Your task to perform on an android device: Open display settings Image 0: 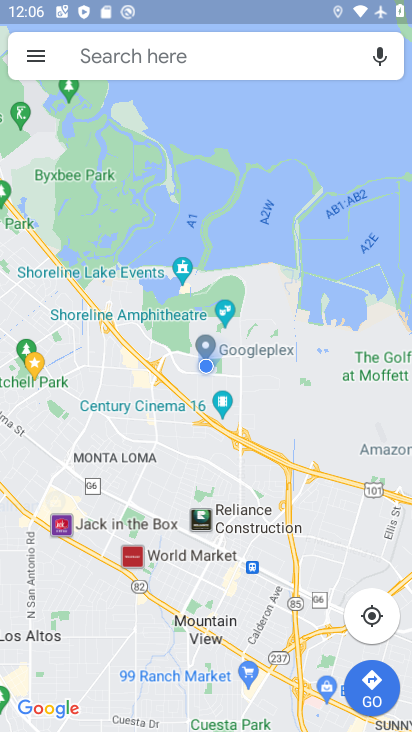
Step 0: press back button
Your task to perform on an android device: Open display settings Image 1: 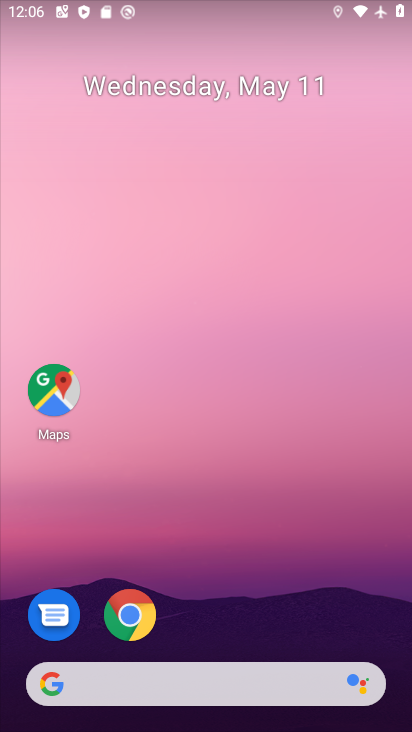
Step 1: drag from (210, 557) to (353, 5)
Your task to perform on an android device: Open display settings Image 2: 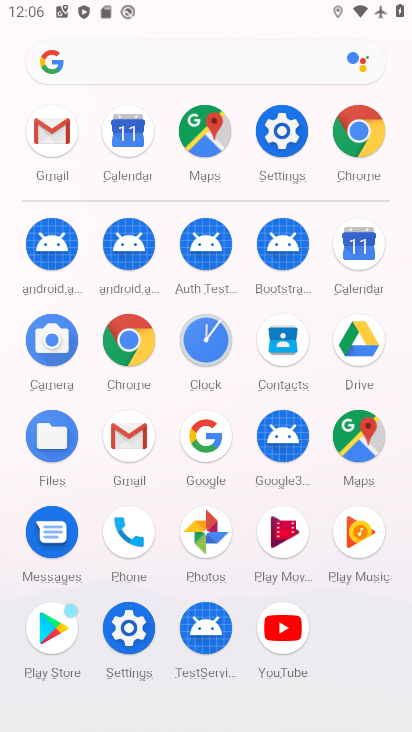
Step 2: drag from (0, 475) to (14, 228)
Your task to perform on an android device: Open display settings Image 3: 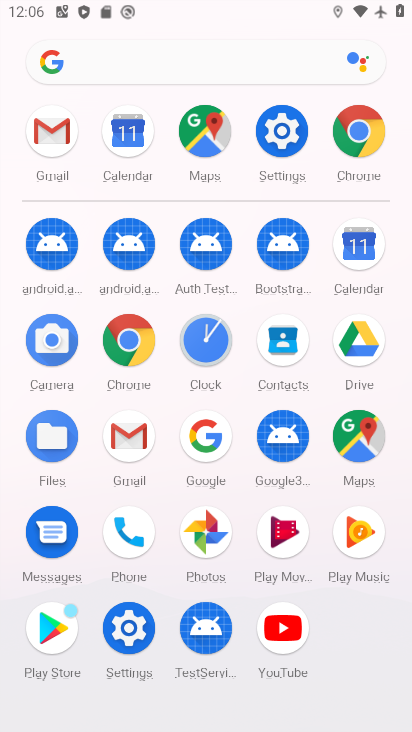
Step 3: click (283, 130)
Your task to perform on an android device: Open display settings Image 4: 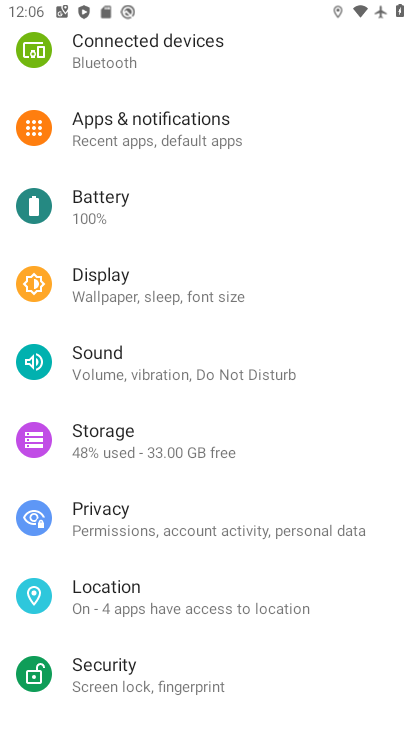
Step 4: drag from (283, 130) to (286, 495)
Your task to perform on an android device: Open display settings Image 5: 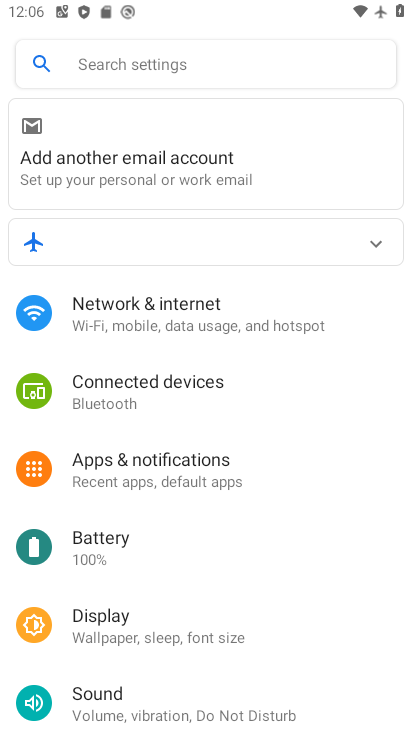
Step 5: click (143, 620)
Your task to perform on an android device: Open display settings Image 6: 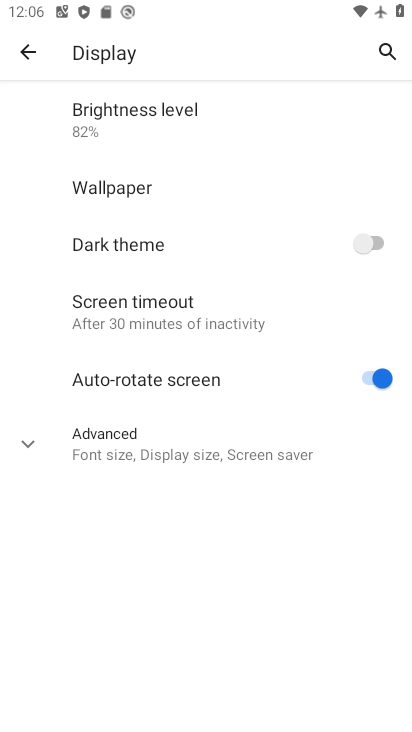
Step 6: click (34, 439)
Your task to perform on an android device: Open display settings Image 7: 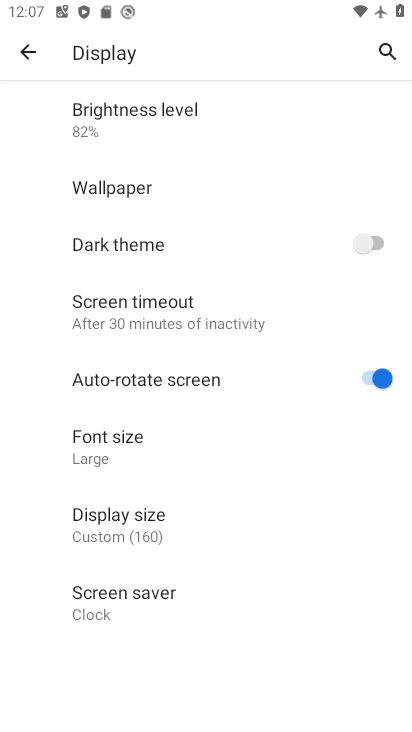
Step 7: task complete